Your task to perform on an android device: Open Reddit.com Image 0: 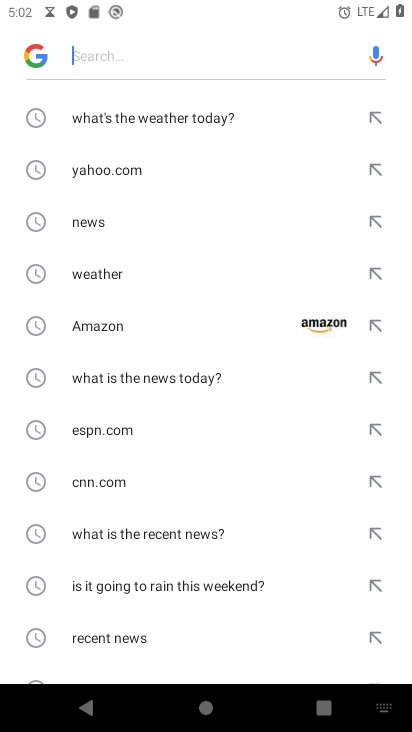
Step 0: click (234, 62)
Your task to perform on an android device: Open Reddit.com Image 1: 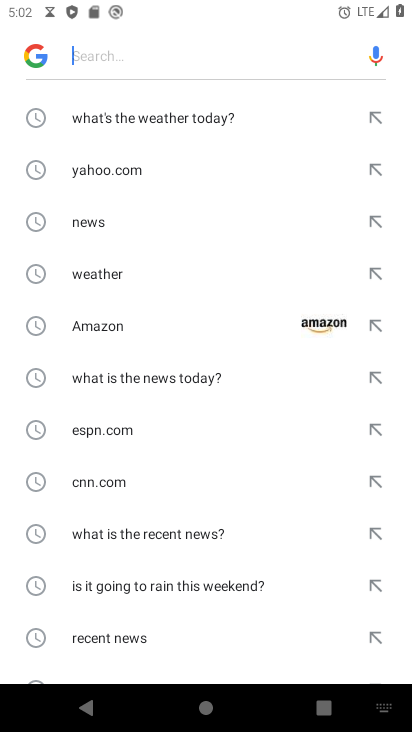
Step 1: type "Reddit.com"
Your task to perform on an android device: Open Reddit.com Image 2: 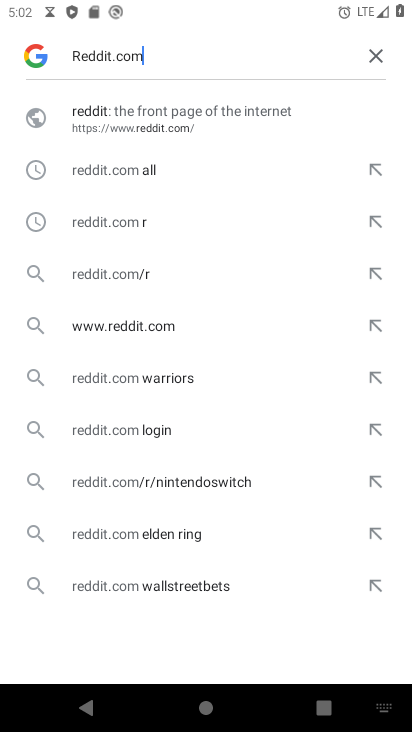
Step 2: click (137, 115)
Your task to perform on an android device: Open Reddit.com Image 3: 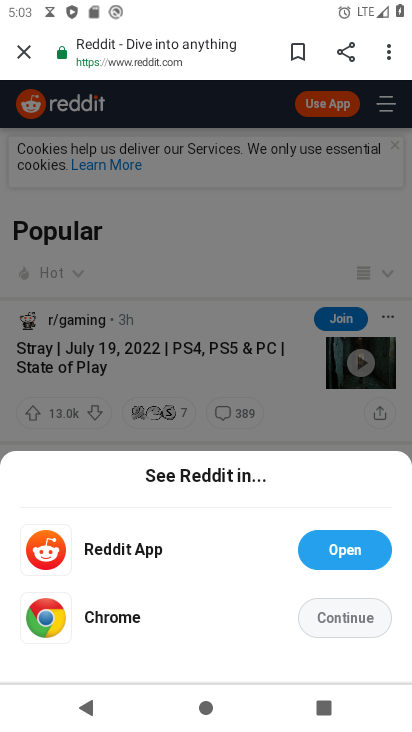
Step 3: click (343, 620)
Your task to perform on an android device: Open Reddit.com Image 4: 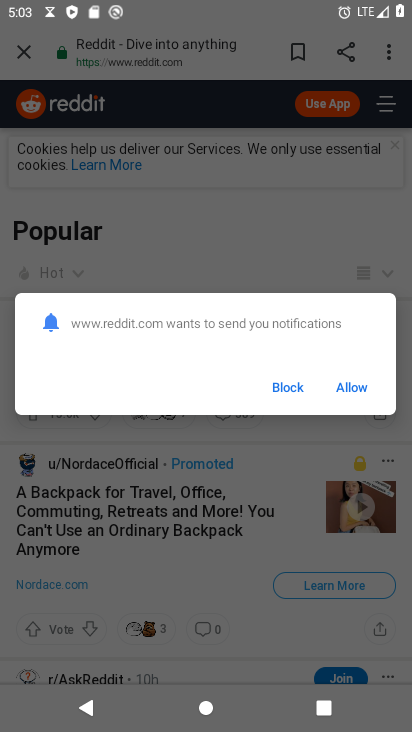
Step 4: click (353, 393)
Your task to perform on an android device: Open Reddit.com Image 5: 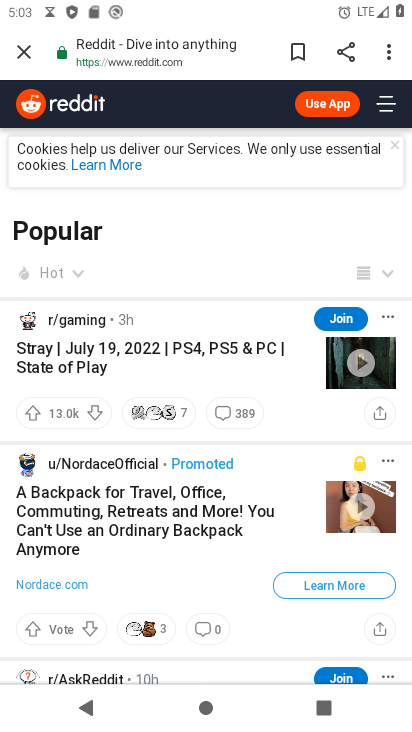
Step 5: task complete